Your task to perform on an android device: Toggle the flashlight Image 0: 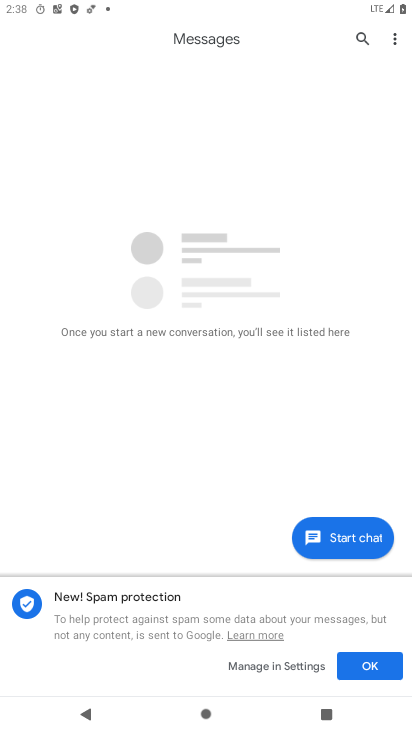
Step 0: press home button
Your task to perform on an android device: Toggle the flashlight Image 1: 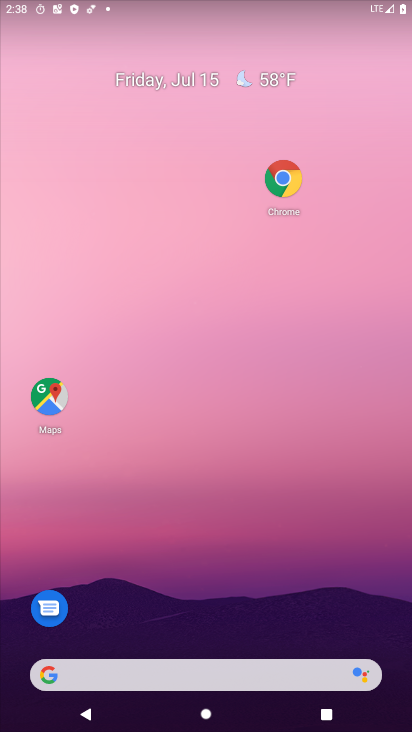
Step 1: task complete